Your task to perform on an android device: find photos in the google photos app Image 0: 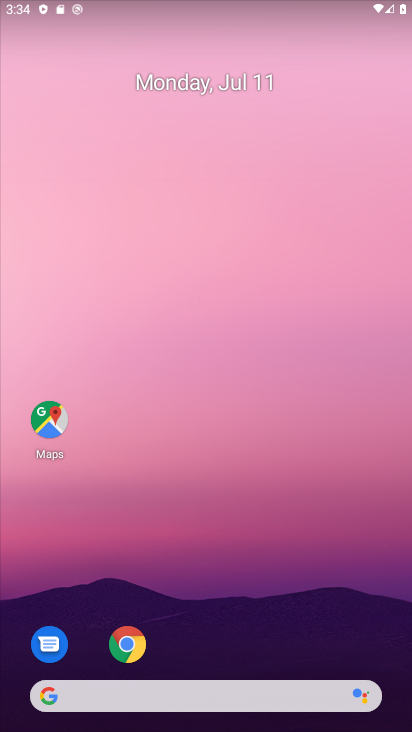
Step 0: press home button
Your task to perform on an android device: find photos in the google photos app Image 1: 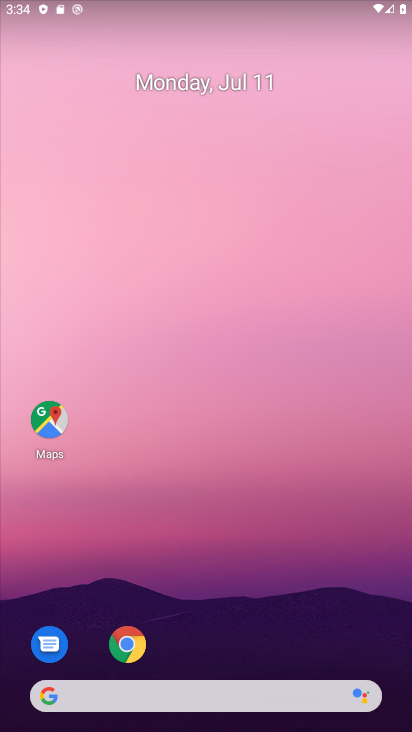
Step 1: drag from (223, 660) to (216, 31)
Your task to perform on an android device: find photos in the google photos app Image 2: 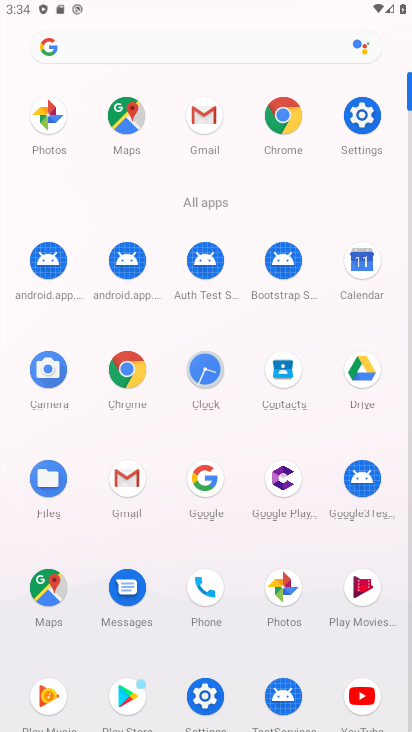
Step 2: click (280, 580)
Your task to perform on an android device: find photos in the google photos app Image 3: 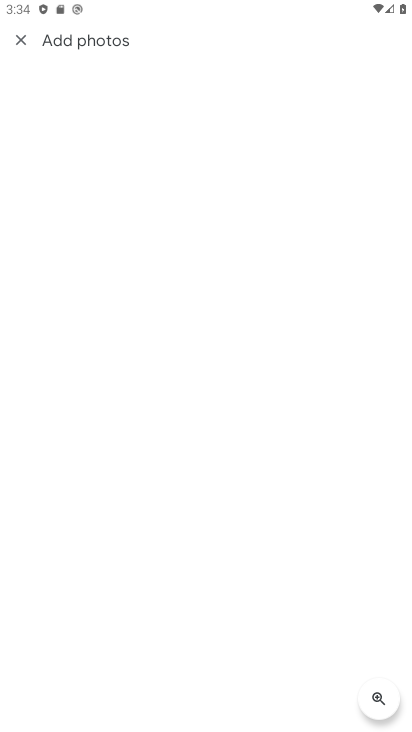
Step 3: click (19, 41)
Your task to perform on an android device: find photos in the google photos app Image 4: 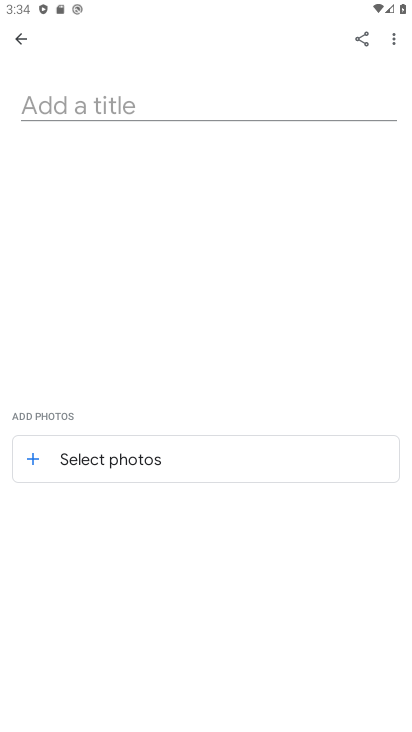
Step 4: click (24, 35)
Your task to perform on an android device: find photos in the google photos app Image 5: 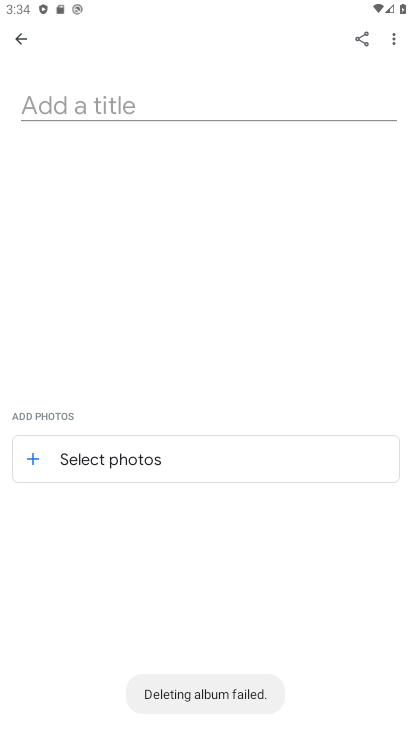
Step 5: click (18, 36)
Your task to perform on an android device: find photos in the google photos app Image 6: 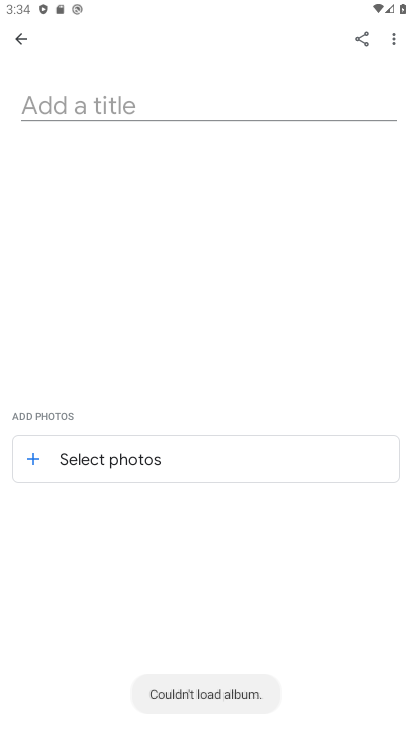
Step 6: press back button
Your task to perform on an android device: find photos in the google photos app Image 7: 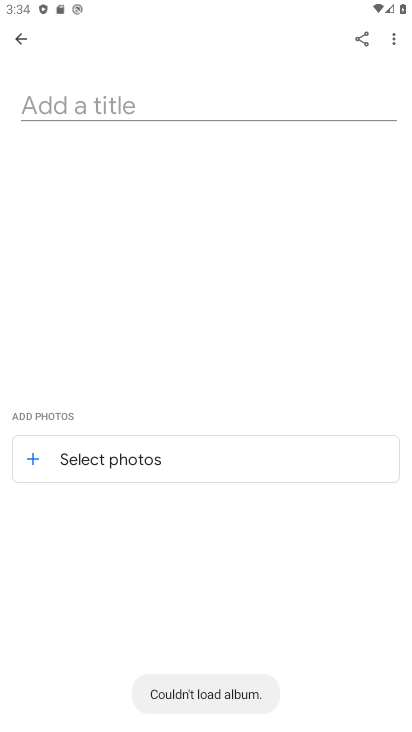
Step 7: press back button
Your task to perform on an android device: find photos in the google photos app Image 8: 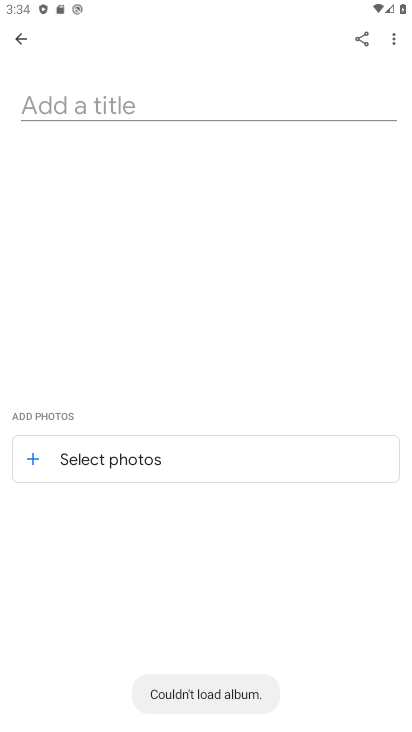
Step 8: press back button
Your task to perform on an android device: find photos in the google photos app Image 9: 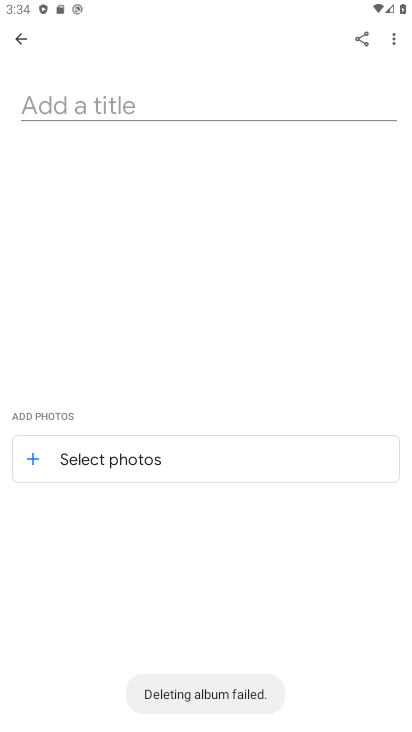
Step 9: click (394, 34)
Your task to perform on an android device: find photos in the google photos app Image 10: 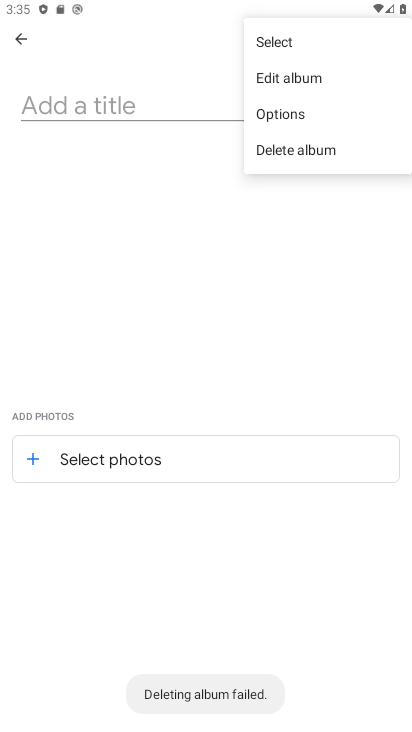
Step 10: click (256, 314)
Your task to perform on an android device: find photos in the google photos app Image 11: 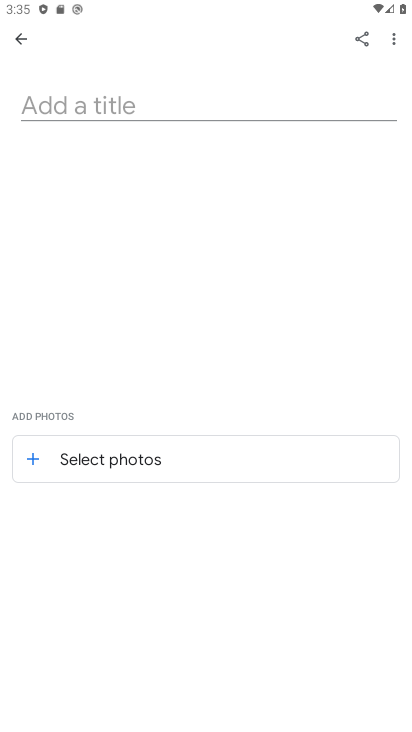
Step 11: task complete